Your task to perform on an android device: Open the stopwatch Image 0: 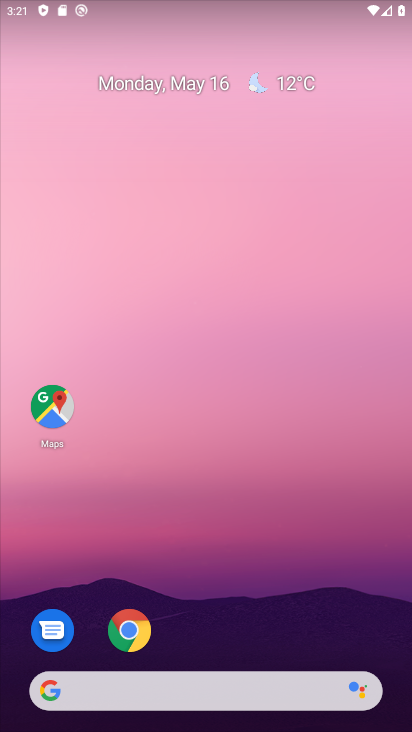
Step 0: drag from (183, 642) to (263, 218)
Your task to perform on an android device: Open the stopwatch Image 1: 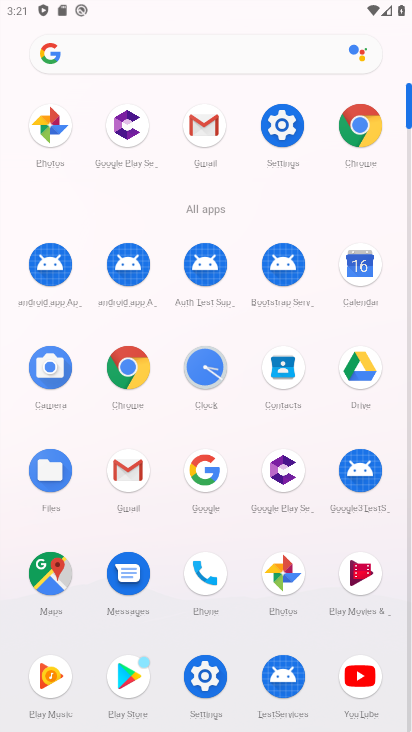
Step 1: click (212, 377)
Your task to perform on an android device: Open the stopwatch Image 2: 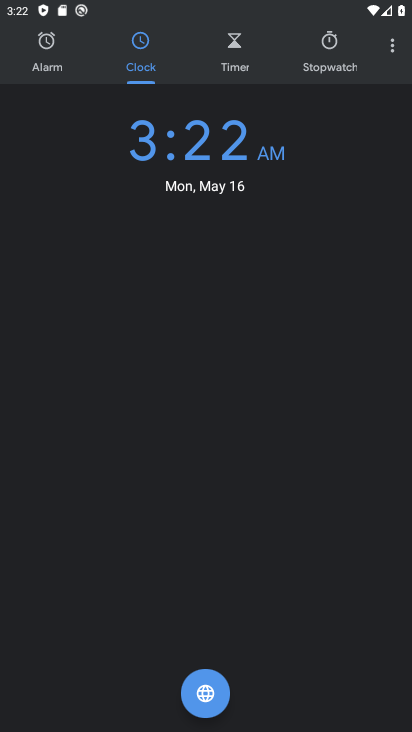
Step 2: click (332, 65)
Your task to perform on an android device: Open the stopwatch Image 3: 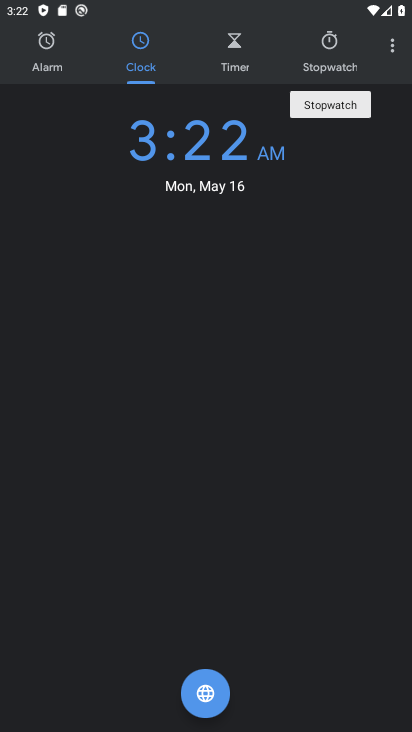
Step 3: click (329, 48)
Your task to perform on an android device: Open the stopwatch Image 4: 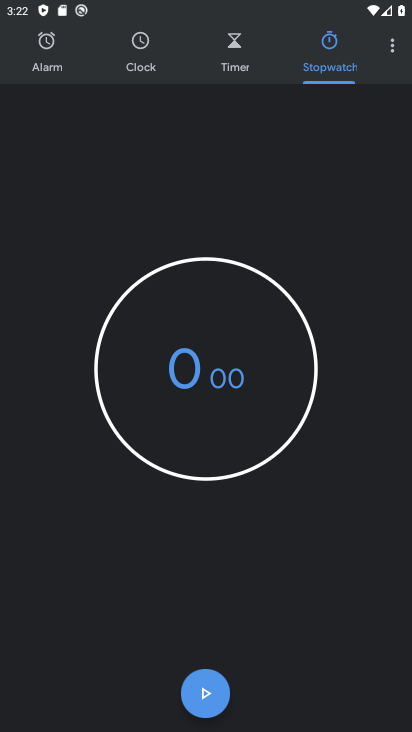
Step 4: task complete